Your task to perform on an android device: Open my contact list Image 0: 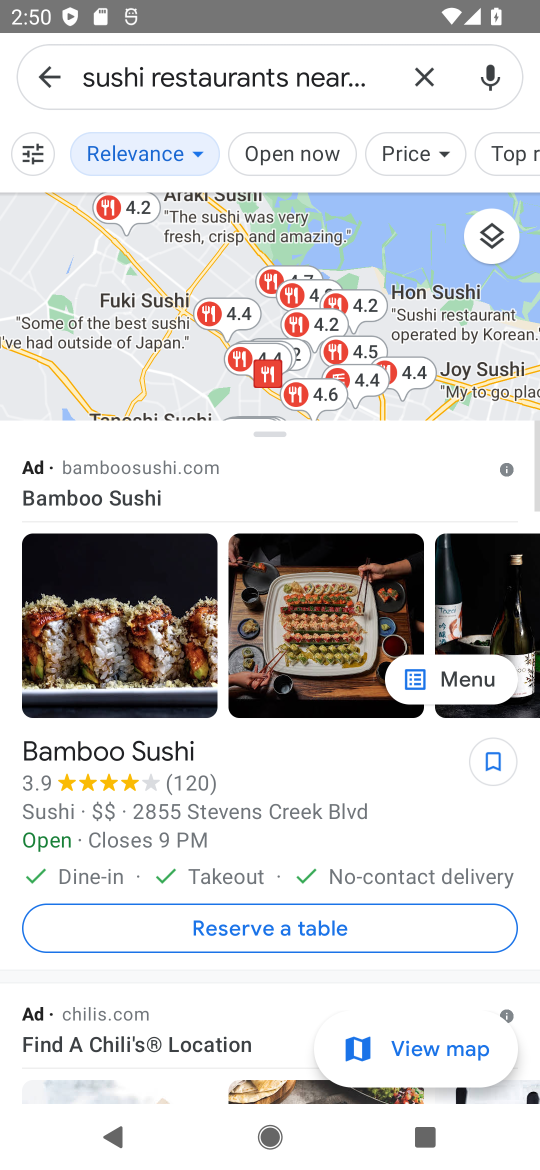
Step 0: press home button
Your task to perform on an android device: Open my contact list Image 1: 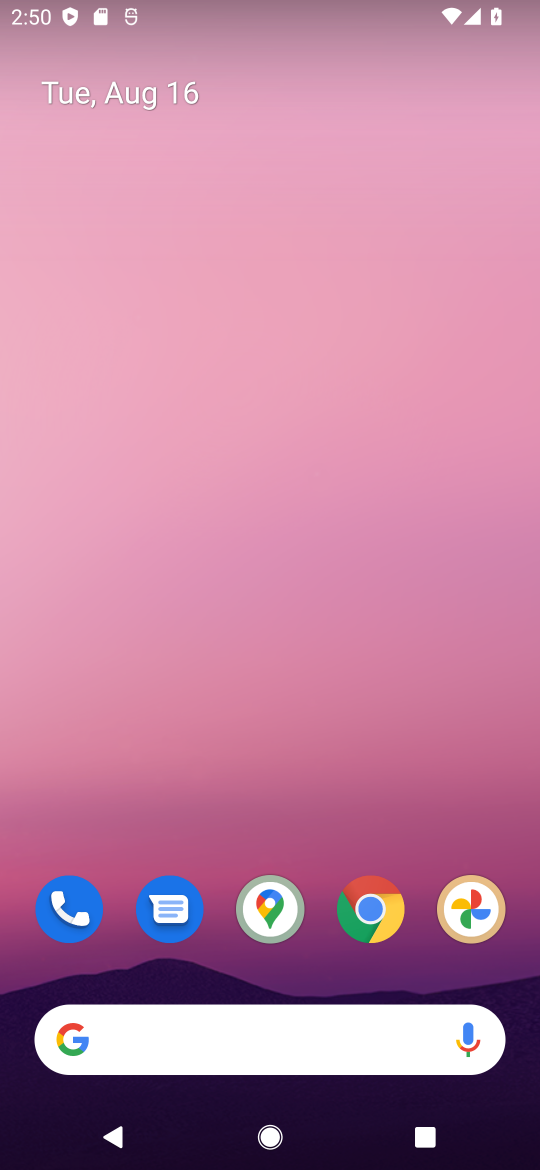
Step 1: click (283, 329)
Your task to perform on an android device: Open my contact list Image 2: 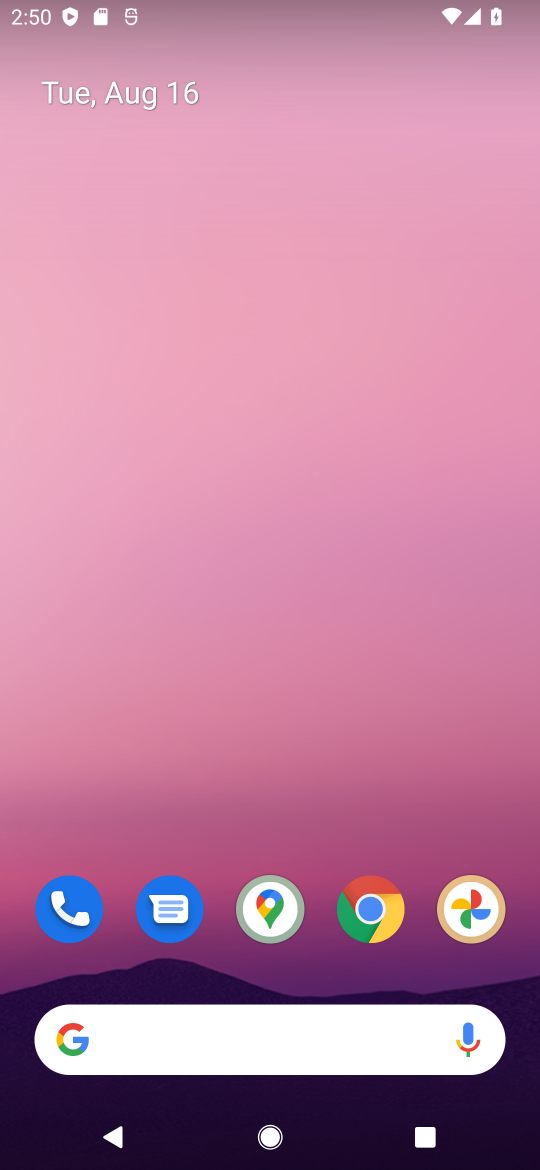
Step 2: drag from (221, 829) to (192, 21)
Your task to perform on an android device: Open my contact list Image 3: 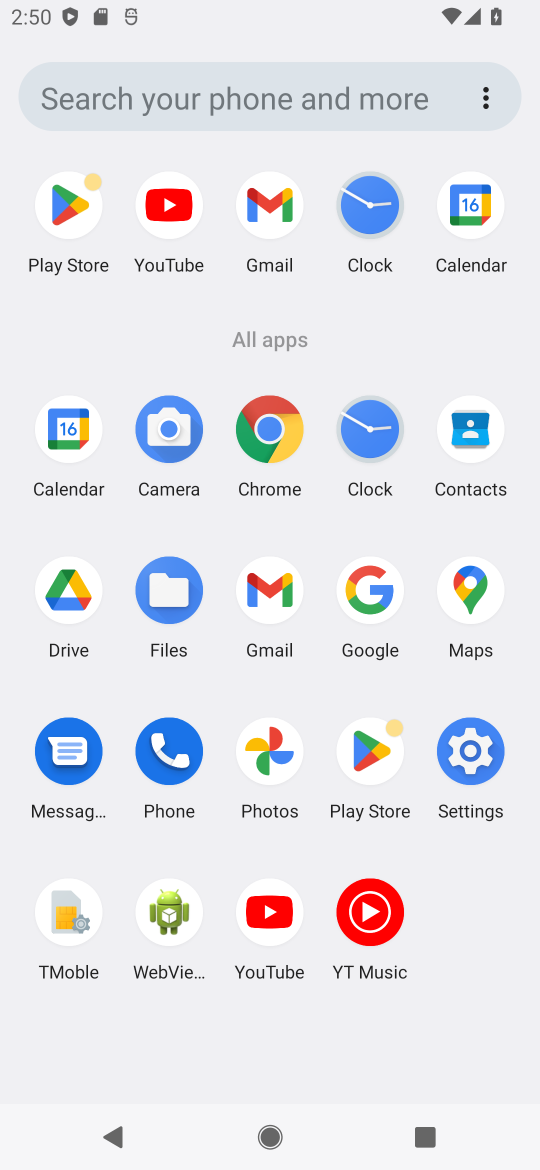
Step 3: click (464, 439)
Your task to perform on an android device: Open my contact list Image 4: 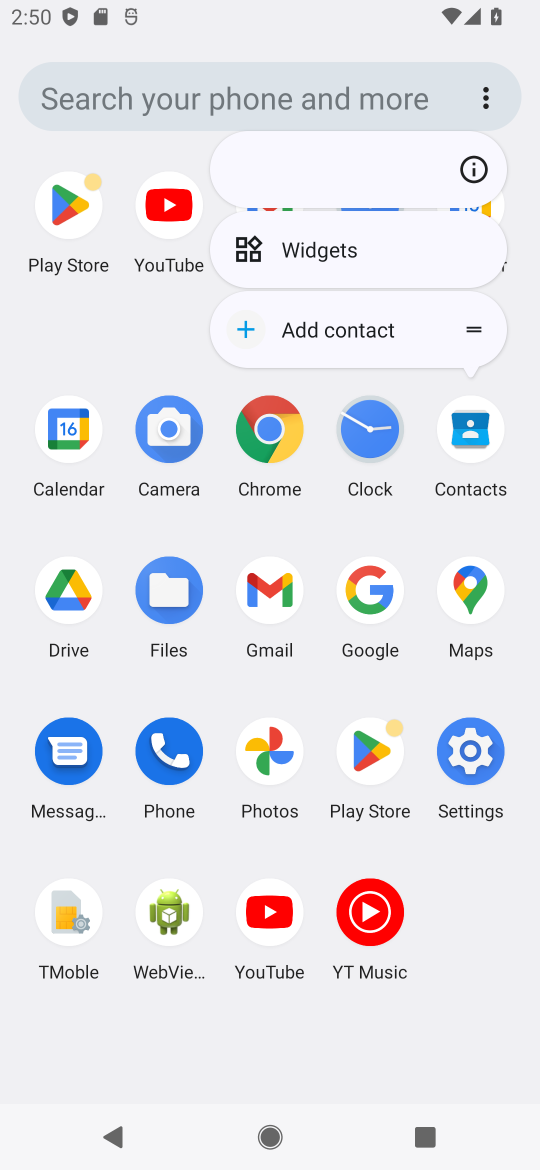
Step 4: click (475, 440)
Your task to perform on an android device: Open my contact list Image 5: 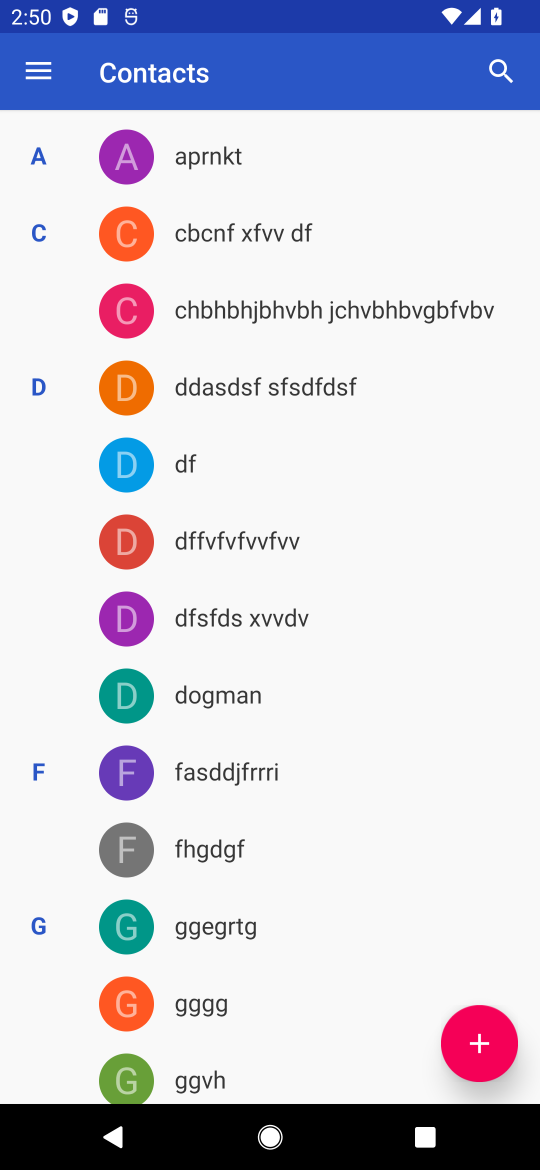
Step 5: task complete